Your task to perform on an android device: turn on notifications settings in the gmail app Image 0: 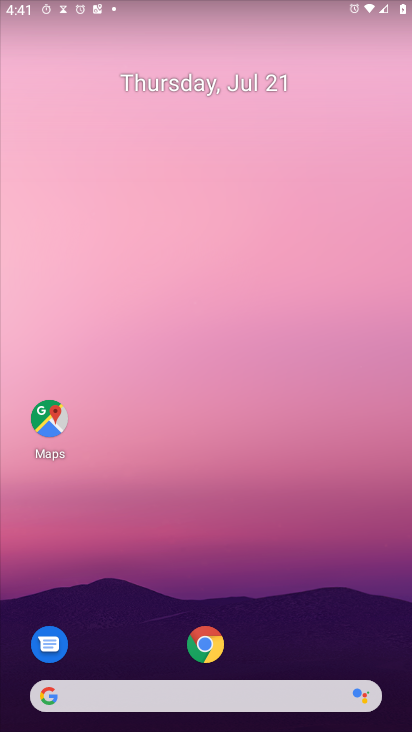
Step 0: press home button
Your task to perform on an android device: turn on notifications settings in the gmail app Image 1: 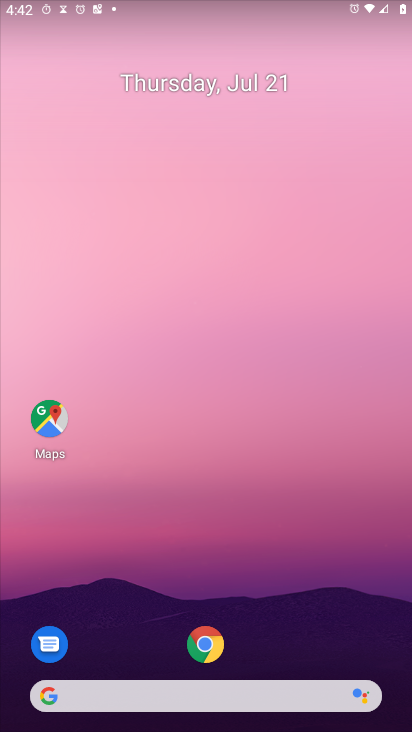
Step 1: drag from (287, 664) to (256, 5)
Your task to perform on an android device: turn on notifications settings in the gmail app Image 2: 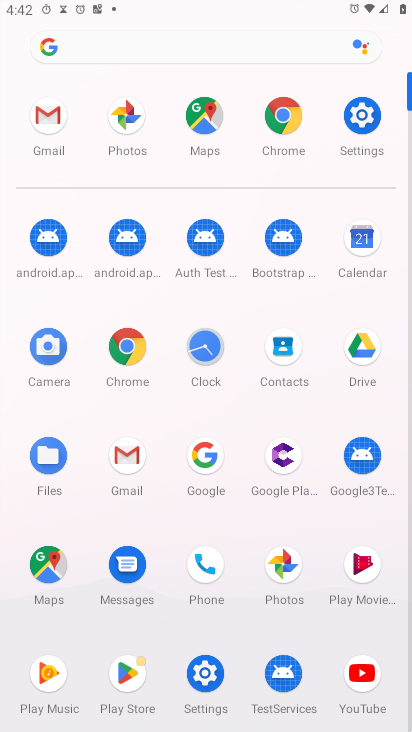
Step 2: click (128, 453)
Your task to perform on an android device: turn on notifications settings in the gmail app Image 3: 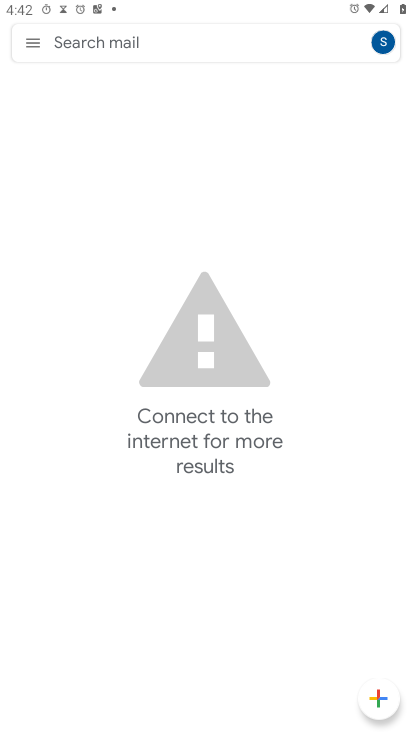
Step 3: click (28, 38)
Your task to perform on an android device: turn on notifications settings in the gmail app Image 4: 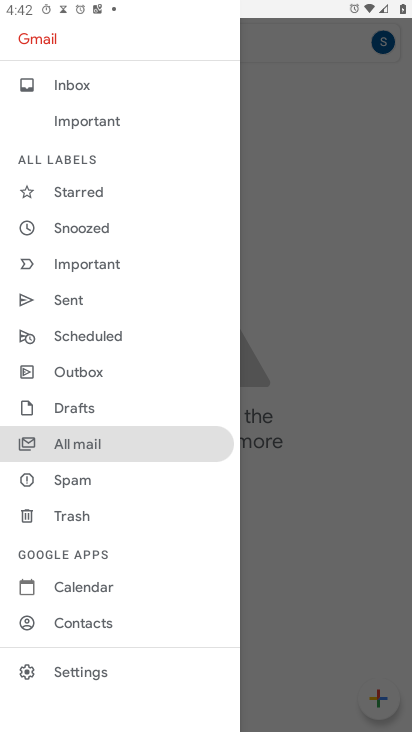
Step 4: click (71, 676)
Your task to perform on an android device: turn on notifications settings in the gmail app Image 5: 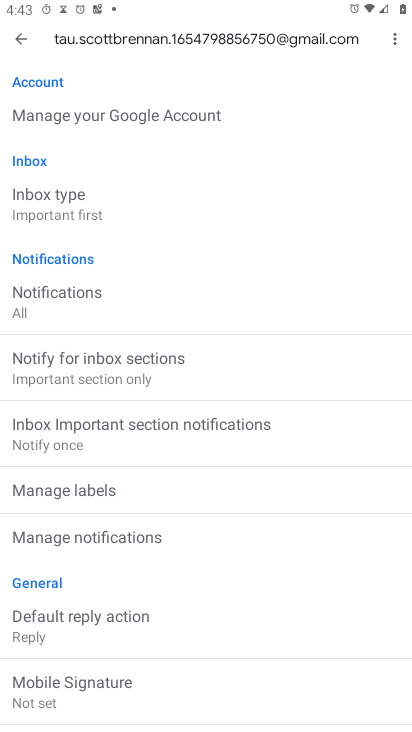
Step 5: click (64, 540)
Your task to perform on an android device: turn on notifications settings in the gmail app Image 6: 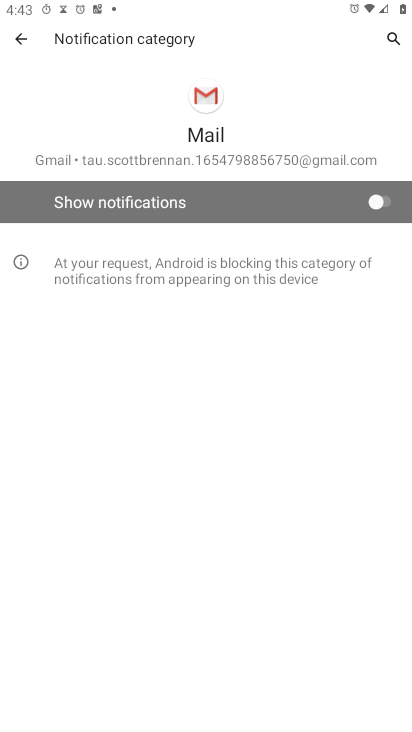
Step 6: click (378, 207)
Your task to perform on an android device: turn on notifications settings in the gmail app Image 7: 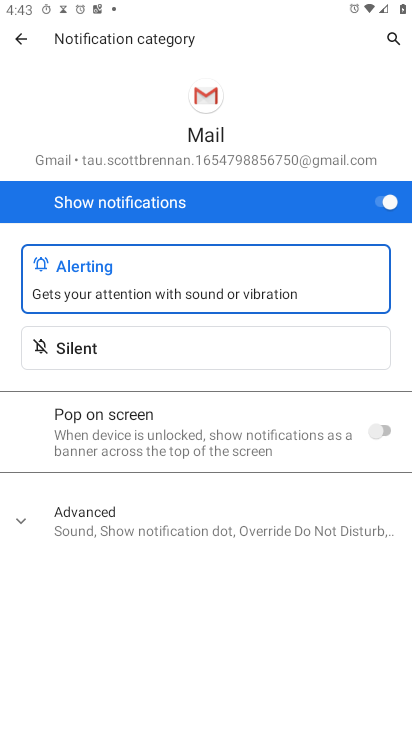
Step 7: task complete